Your task to perform on an android device: open a bookmark in the chrome app Image 0: 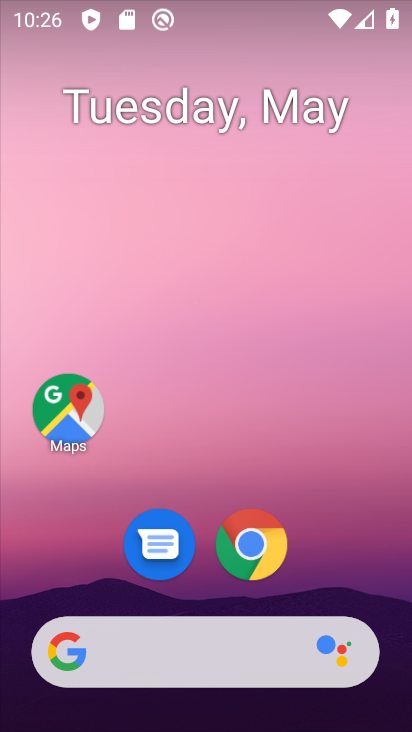
Step 0: click (235, 87)
Your task to perform on an android device: open a bookmark in the chrome app Image 1: 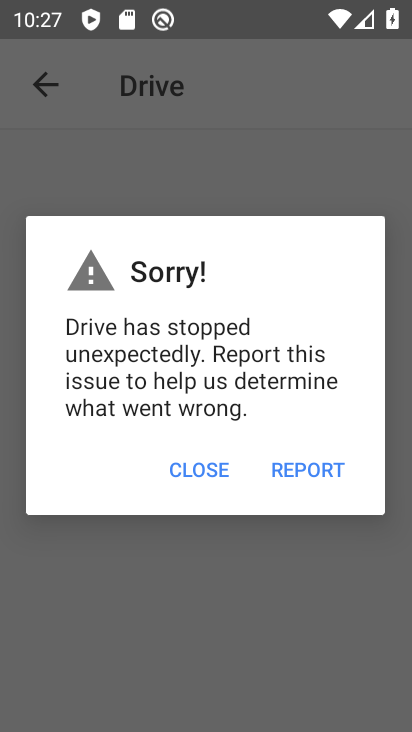
Step 1: press home button
Your task to perform on an android device: open a bookmark in the chrome app Image 2: 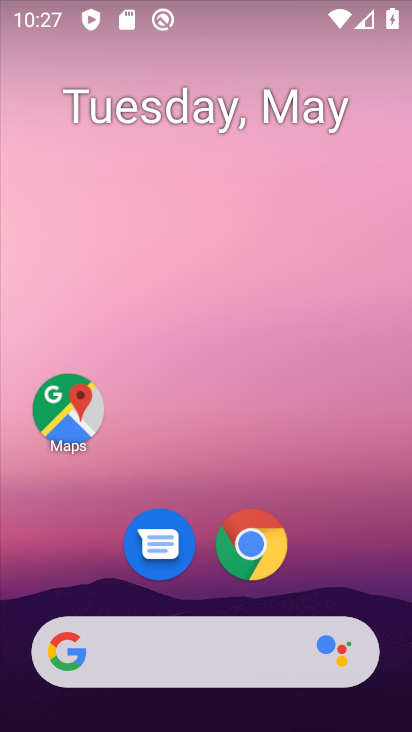
Step 2: drag from (393, 595) to (256, 19)
Your task to perform on an android device: open a bookmark in the chrome app Image 3: 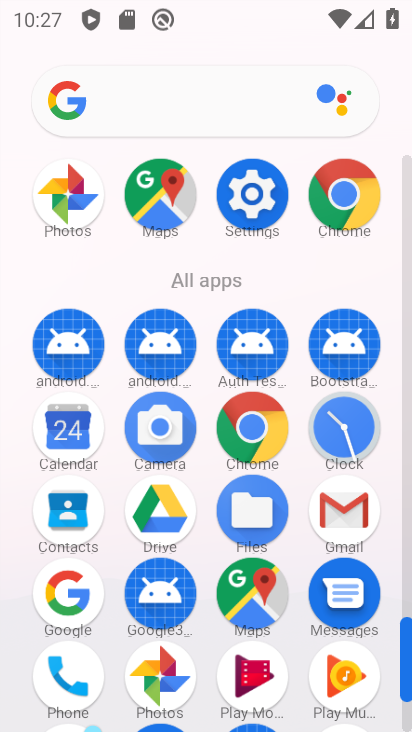
Step 3: click (354, 188)
Your task to perform on an android device: open a bookmark in the chrome app Image 4: 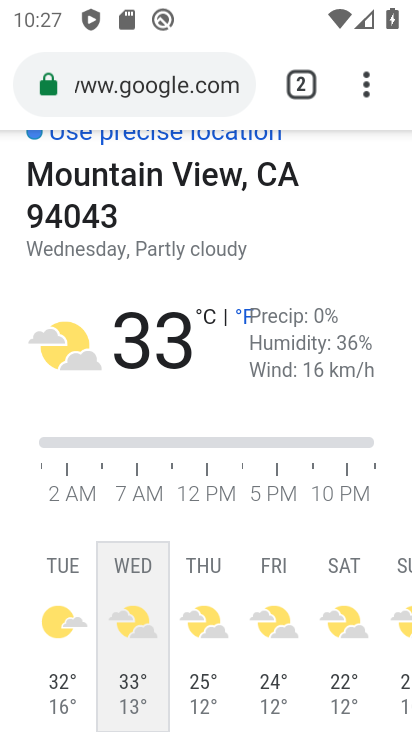
Step 4: click (367, 93)
Your task to perform on an android device: open a bookmark in the chrome app Image 5: 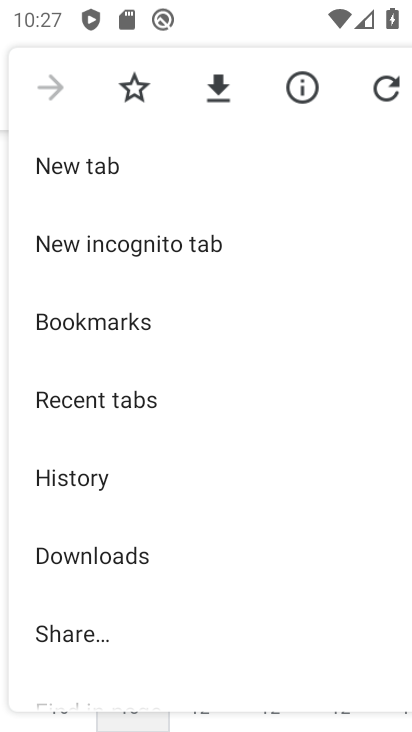
Step 5: click (243, 319)
Your task to perform on an android device: open a bookmark in the chrome app Image 6: 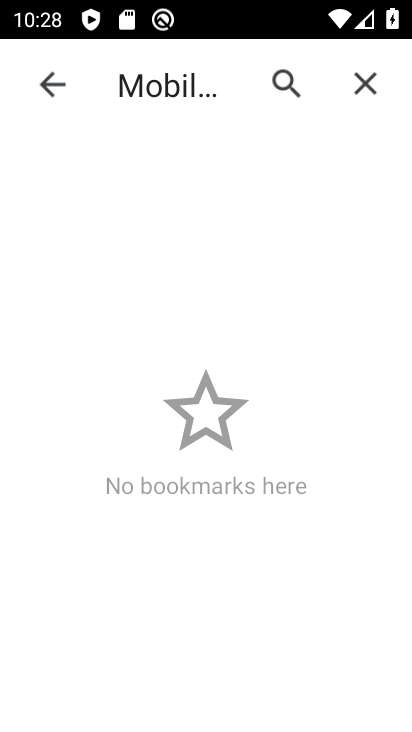
Step 6: task complete